Your task to perform on an android device: turn on data saver in the chrome app Image 0: 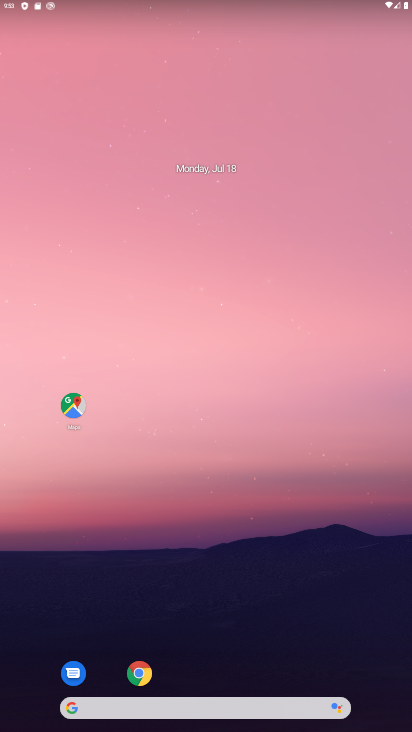
Step 0: click (141, 679)
Your task to perform on an android device: turn on data saver in the chrome app Image 1: 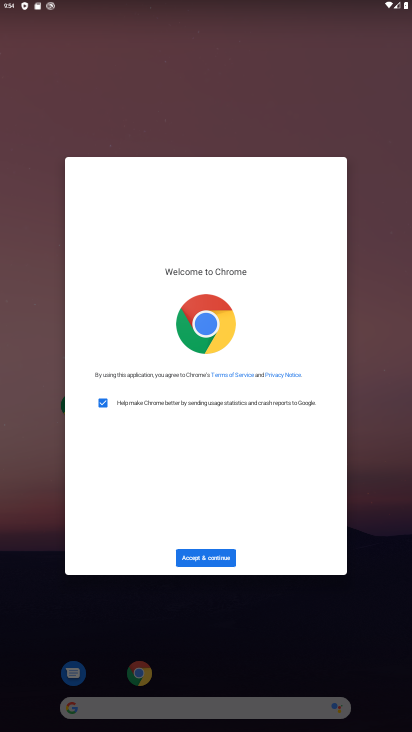
Step 1: click (223, 557)
Your task to perform on an android device: turn on data saver in the chrome app Image 2: 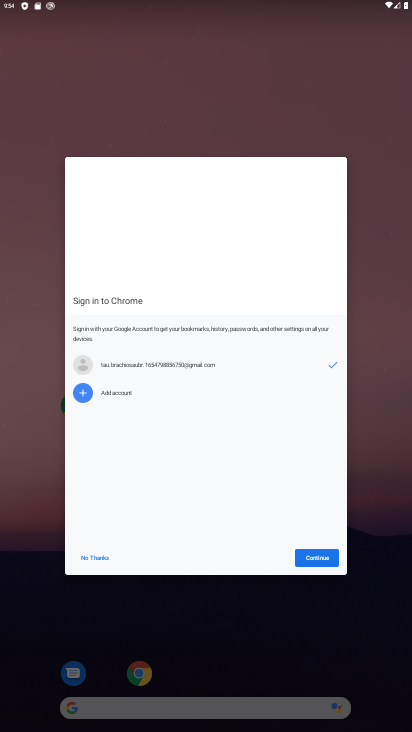
Step 2: click (310, 559)
Your task to perform on an android device: turn on data saver in the chrome app Image 3: 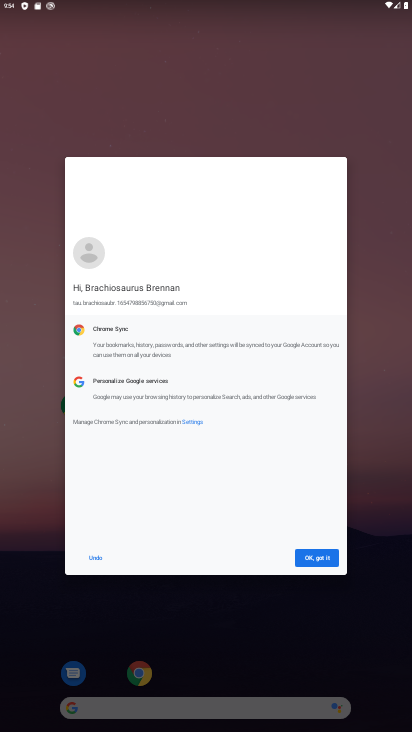
Step 3: click (310, 559)
Your task to perform on an android device: turn on data saver in the chrome app Image 4: 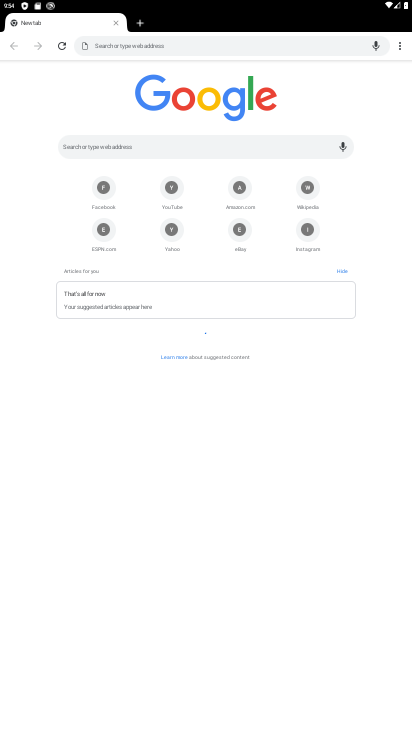
Step 4: click (400, 47)
Your task to perform on an android device: turn on data saver in the chrome app Image 5: 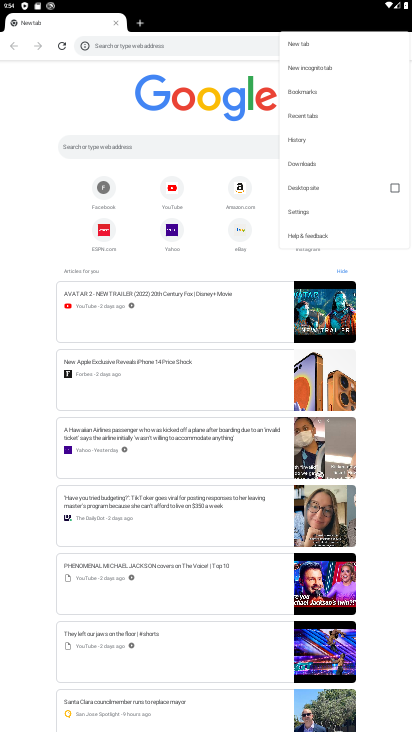
Step 5: click (299, 213)
Your task to perform on an android device: turn on data saver in the chrome app Image 6: 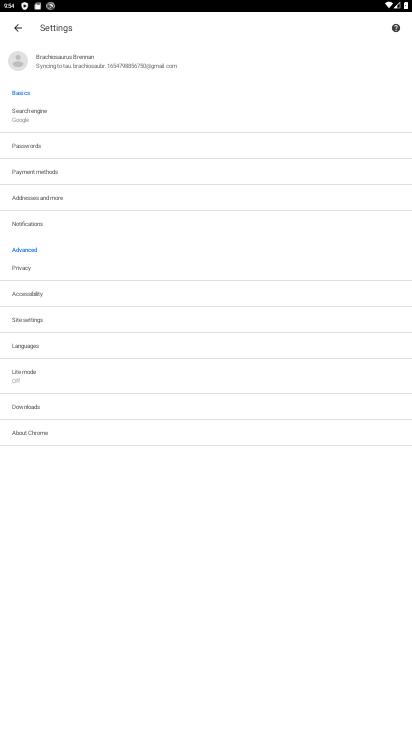
Step 6: click (28, 383)
Your task to perform on an android device: turn on data saver in the chrome app Image 7: 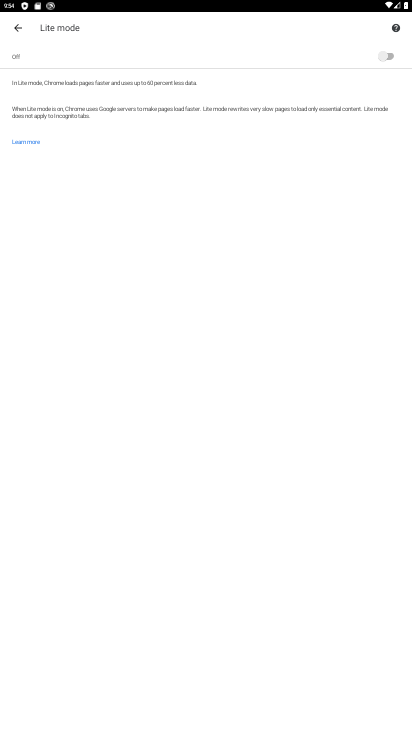
Step 7: click (378, 67)
Your task to perform on an android device: turn on data saver in the chrome app Image 8: 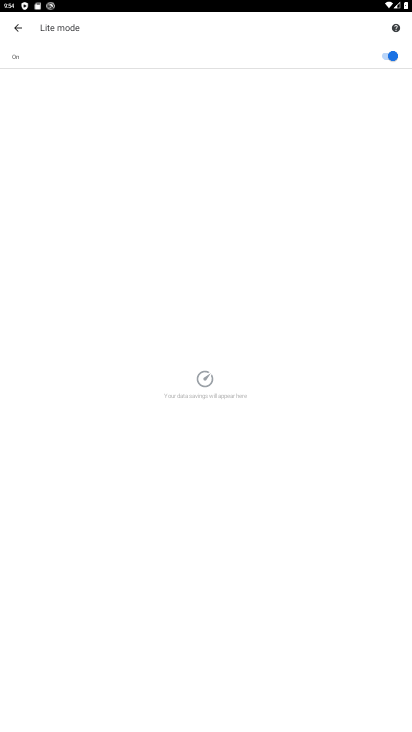
Step 8: task complete